Your task to perform on an android device: check storage Image 0: 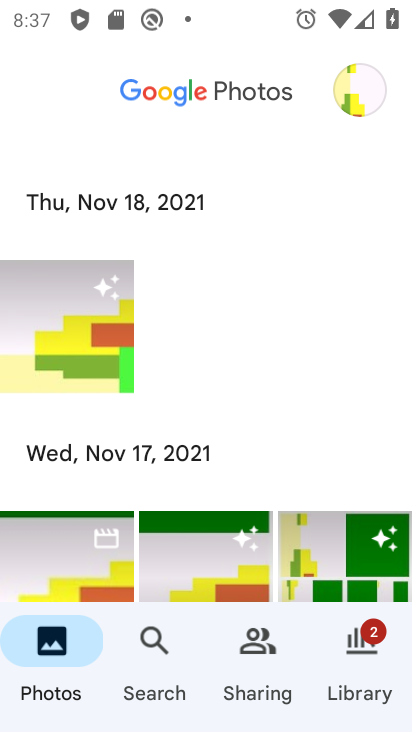
Step 0: press home button
Your task to perform on an android device: check storage Image 1: 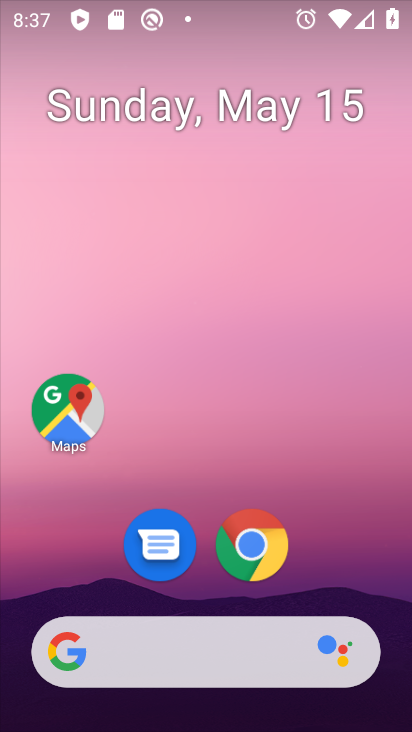
Step 1: drag from (367, 547) to (370, 32)
Your task to perform on an android device: check storage Image 2: 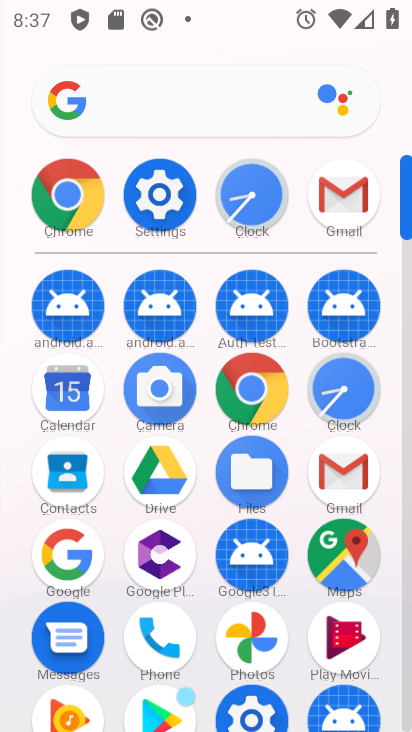
Step 2: click (160, 210)
Your task to perform on an android device: check storage Image 3: 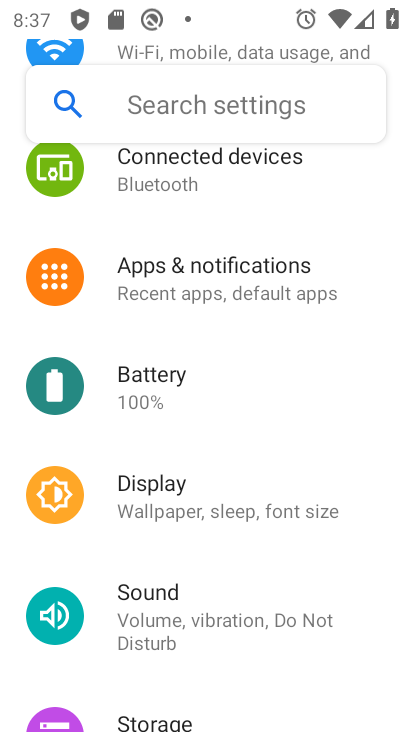
Step 3: drag from (366, 239) to (370, 469)
Your task to perform on an android device: check storage Image 4: 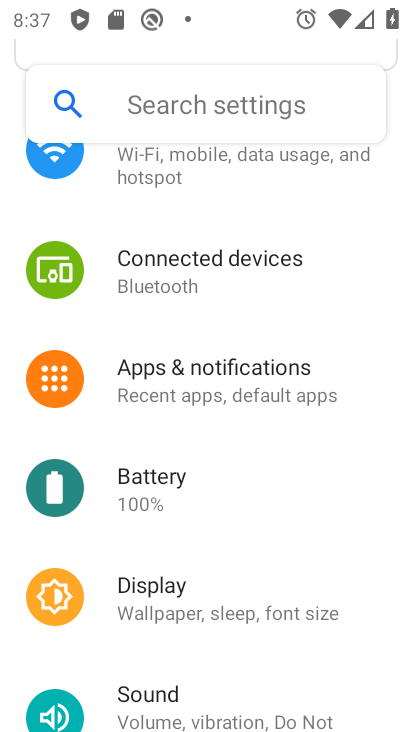
Step 4: drag from (361, 227) to (360, 512)
Your task to perform on an android device: check storage Image 5: 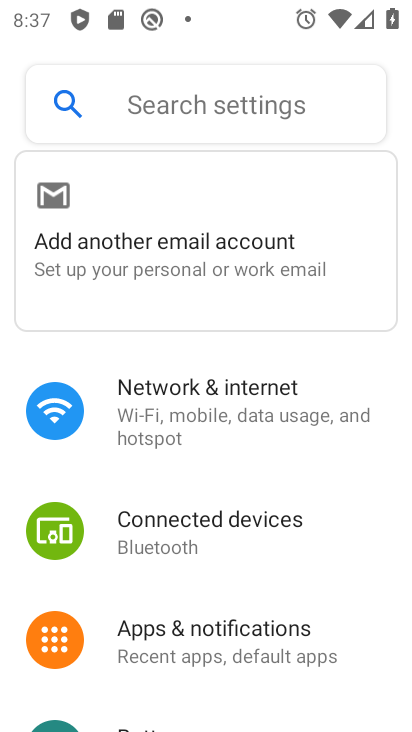
Step 5: drag from (361, 641) to (356, 438)
Your task to perform on an android device: check storage Image 6: 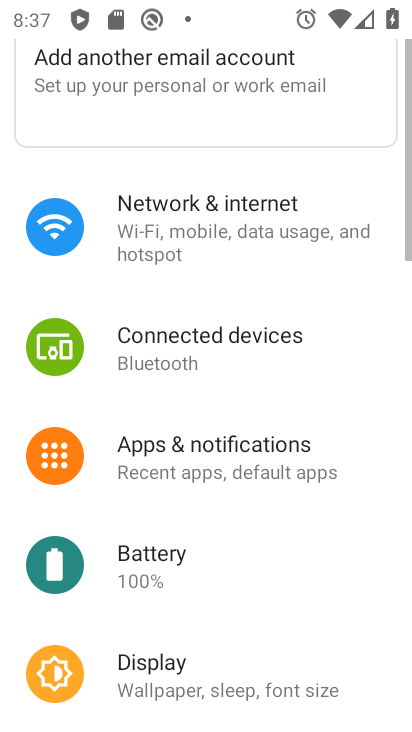
Step 6: drag from (352, 643) to (352, 394)
Your task to perform on an android device: check storage Image 7: 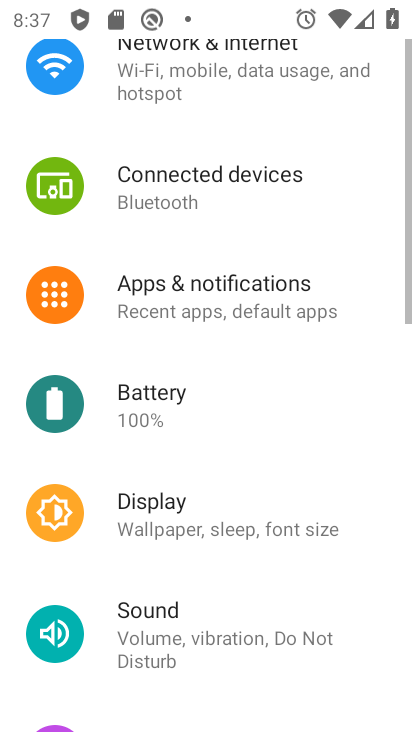
Step 7: drag from (377, 541) to (372, 446)
Your task to perform on an android device: check storage Image 8: 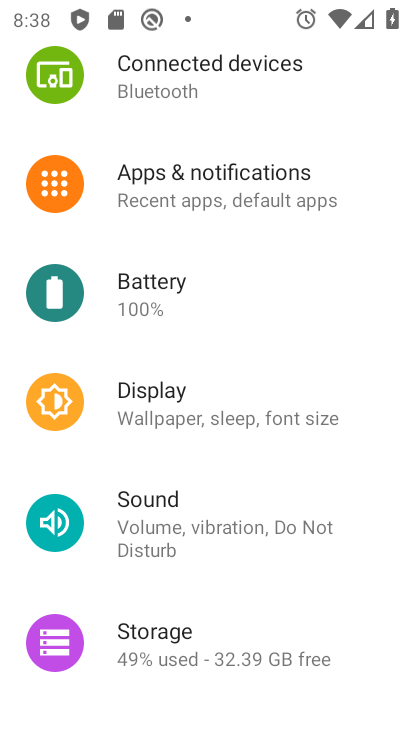
Step 8: click (280, 651)
Your task to perform on an android device: check storage Image 9: 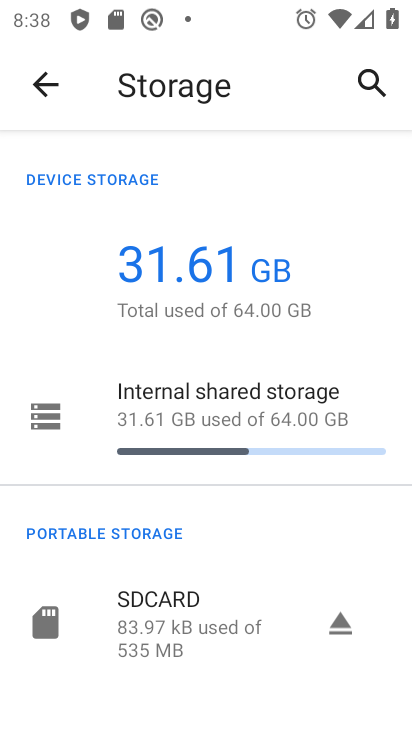
Step 9: task complete